Your task to perform on an android device: Search for "asus zenbook" on target, select the first entry, and add it to the cart. Image 0: 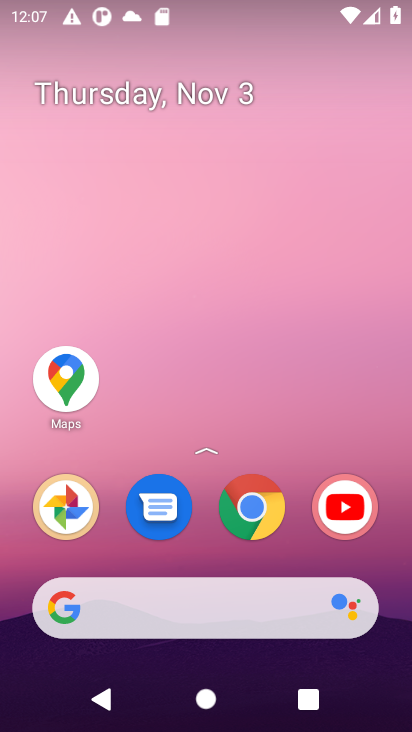
Step 0: click (262, 622)
Your task to perform on an android device: Search for "asus zenbook" on target, select the first entry, and add it to the cart. Image 1: 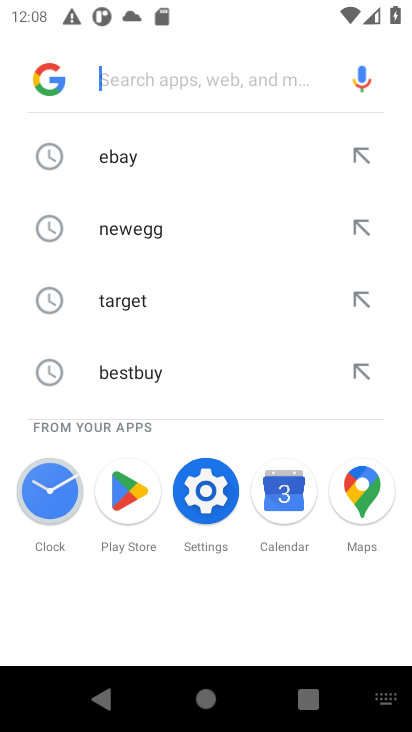
Step 1: click (129, 298)
Your task to perform on an android device: Search for "asus zenbook" on target, select the first entry, and add it to the cart. Image 2: 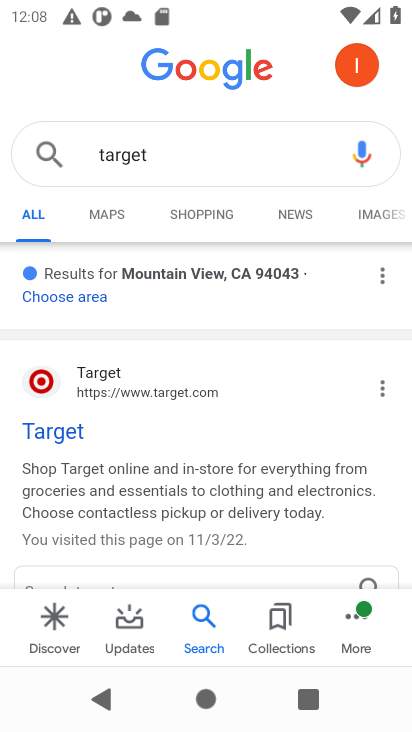
Step 2: click (60, 412)
Your task to perform on an android device: Search for "asus zenbook" on target, select the first entry, and add it to the cart. Image 3: 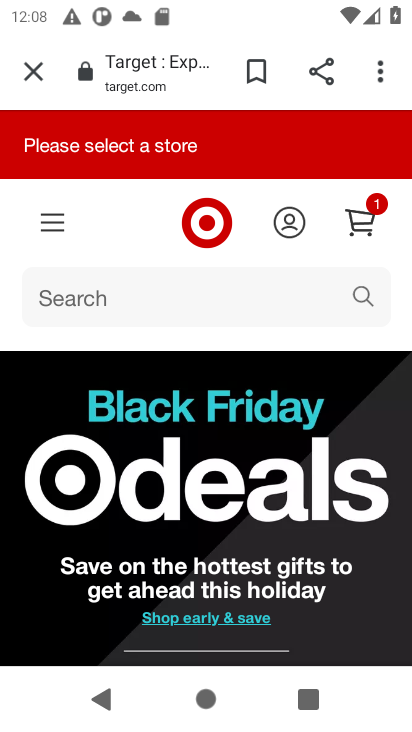
Step 3: click (275, 292)
Your task to perform on an android device: Search for "asus zenbook" on target, select the first entry, and add it to the cart. Image 4: 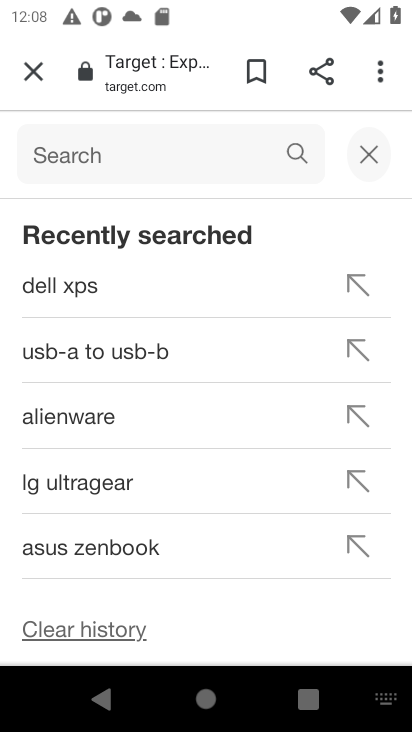
Step 4: click (130, 555)
Your task to perform on an android device: Search for "asus zenbook" on target, select the first entry, and add it to the cart. Image 5: 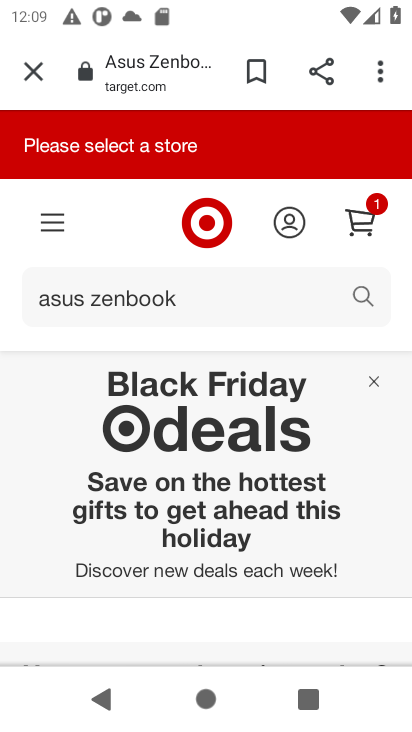
Step 5: task complete